Your task to perform on an android device: Open the calendar and show me this week's events? Image 0: 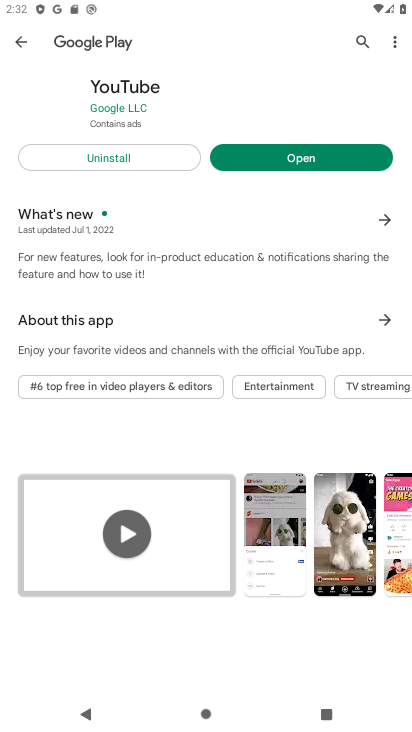
Step 0: drag from (324, 2) to (309, 493)
Your task to perform on an android device: Open the calendar and show me this week's events? Image 1: 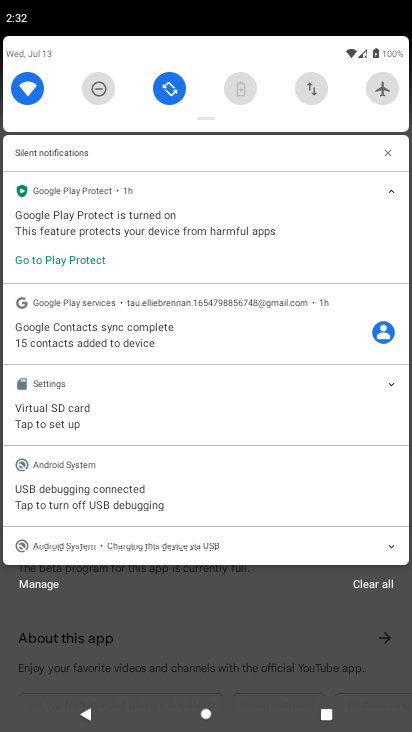
Step 1: press home button
Your task to perform on an android device: Open the calendar and show me this week's events? Image 2: 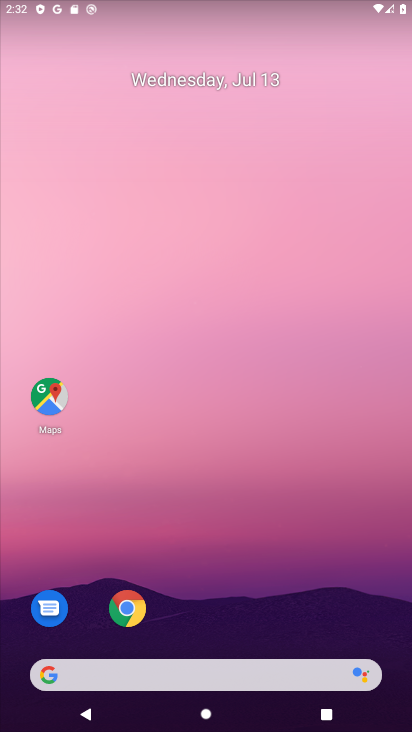
Step 2: click (209, 81)
Your task to perform on an android device: Open the calendar and show me this week's events? Image 3: 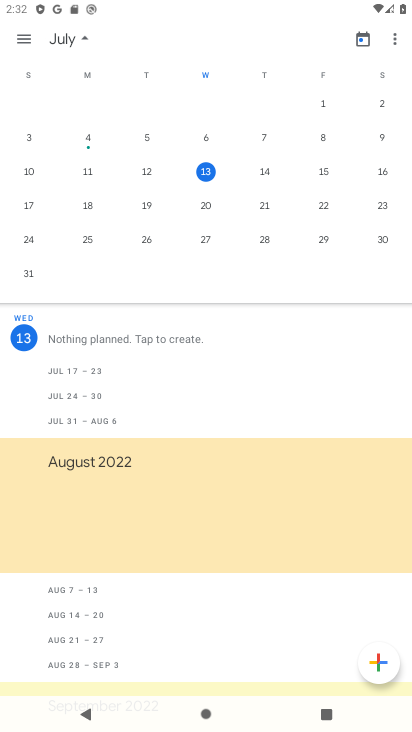
Step 3: click (26, 40)
Your task to perform on an android device: Open the calendar and show me this week's events? Image 4: 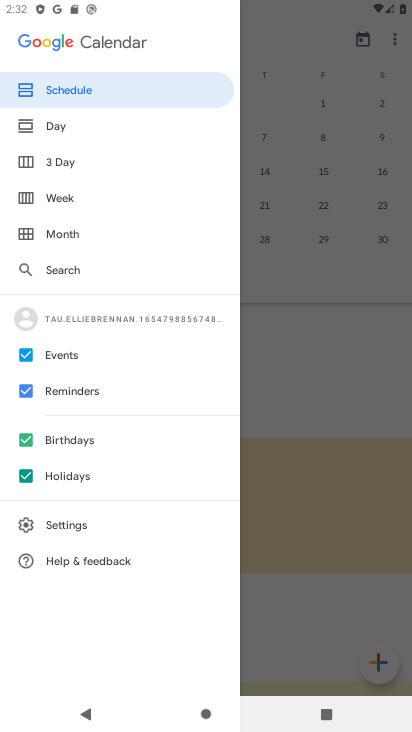
Step 4: click (304, 254)
Your task to perform on an android device: Open the calendar and show me this week's events? Image 5: 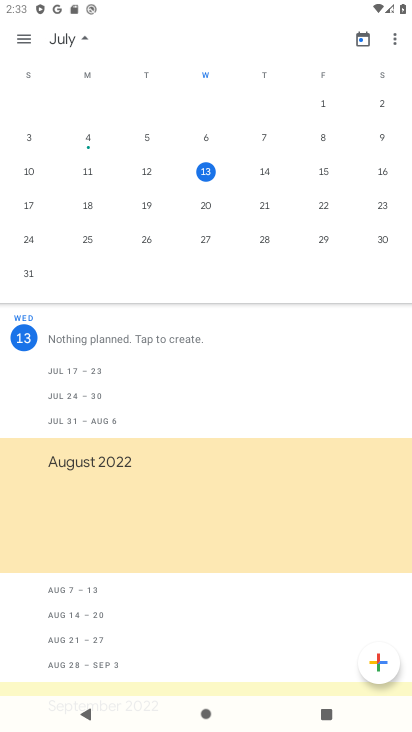
Step 5: click (76, 47)
Your task to perform on an android device: Open the calendar and show me this week's events? Image 6: 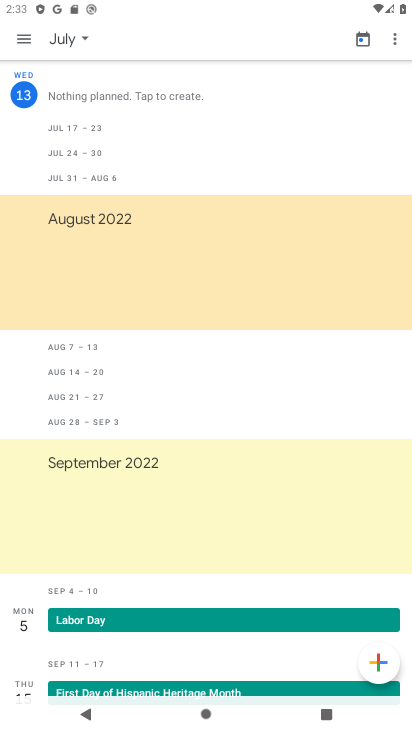
Step 6: click (32, 37)
Your task to perform on an android device: Open the calendar and show me this week's events? Image 7: 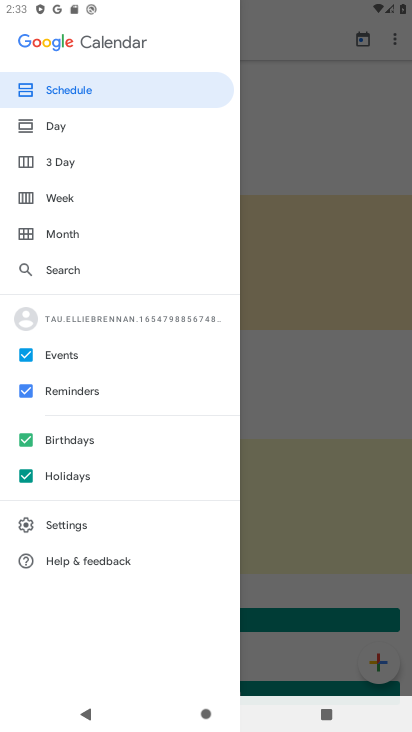
Step 7: click (67, 205)
Your task to perform on an android device: Open the calendar and show me this week's events? Image 8: 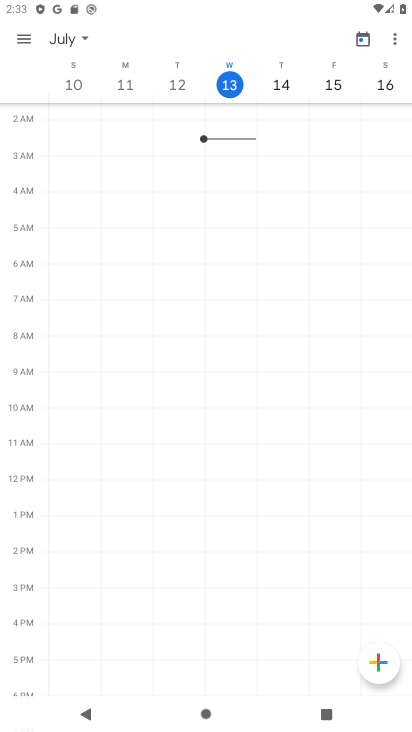
Step 8: task complete